Your task to perform on an android device: turn off location Image 0: 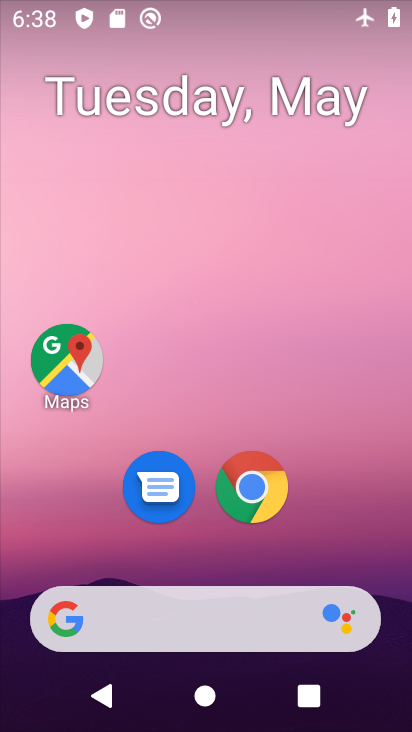
Step 0: drag from (337, 498) to (257, 214)
Your task to perform on an android device: turn off location Image 1: 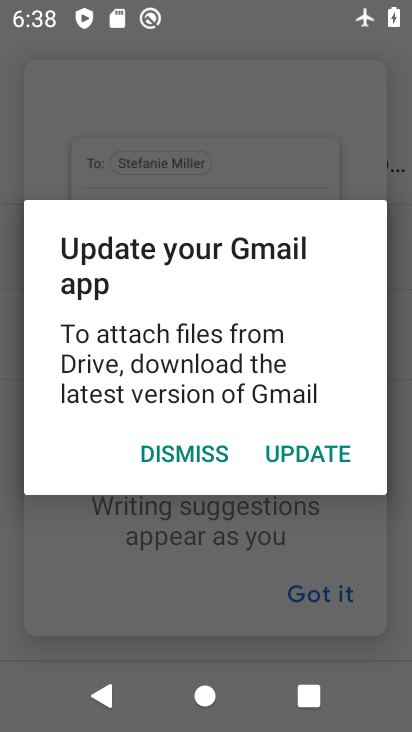
Step 1: press home button
Your task to perform on an android device: turn off location Image 2: 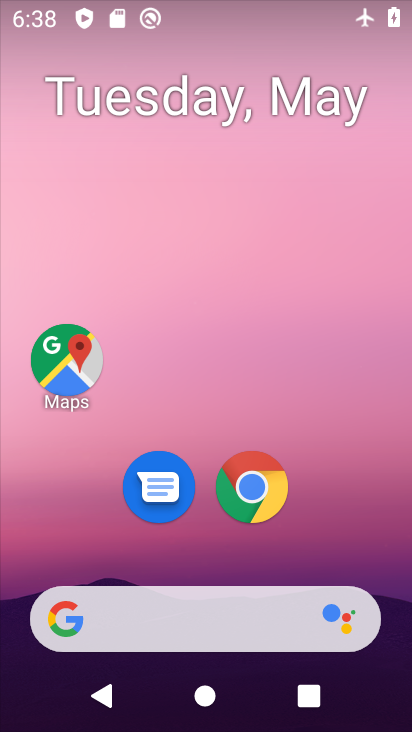
Step 2: drag from (328, 500) to (210, 220)
Your task to perform on an android device: turn off location Image 3: 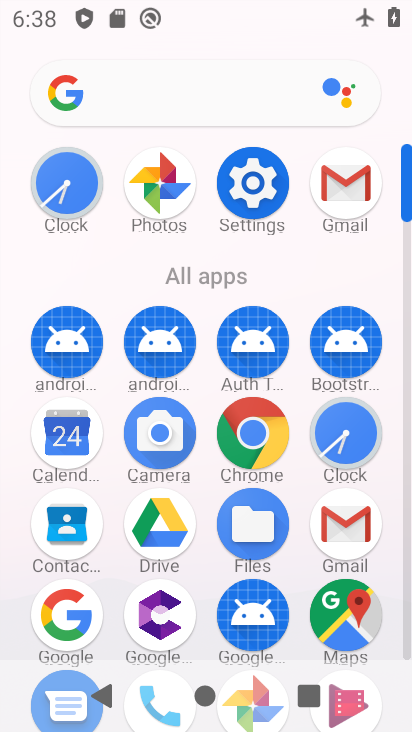
Step 3: click (263, 175)
Your task to perform on an android device: turn off location Image 4: 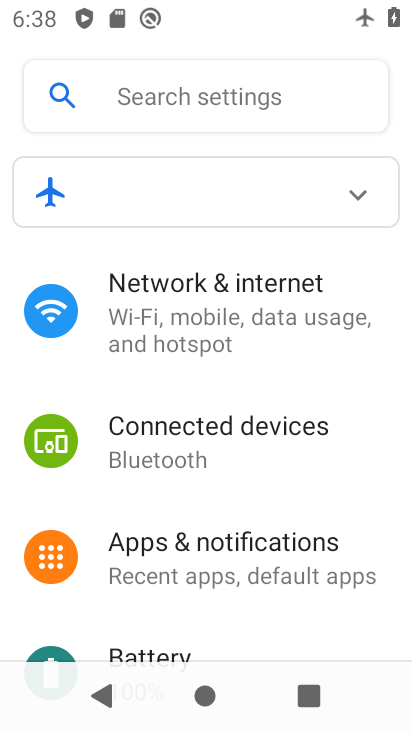
Step 4: drag from (233, 509) to (149, 263)
Your task to perform on an android device: turn off location Image 5: 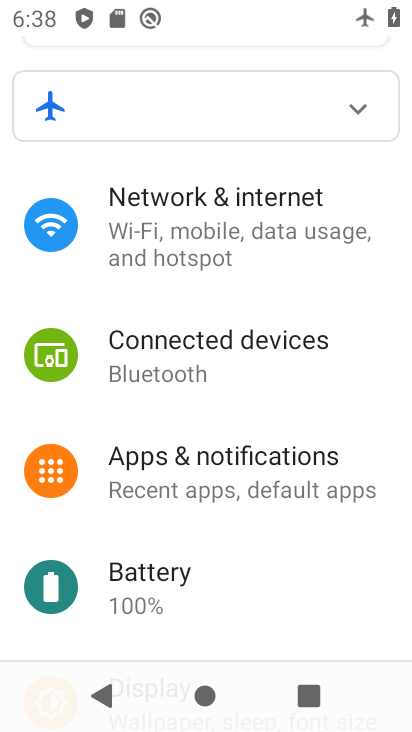
Step 5: drag from (265, 515) to (172, 261)
Your task to perform on an android device: turn off location Image 6: 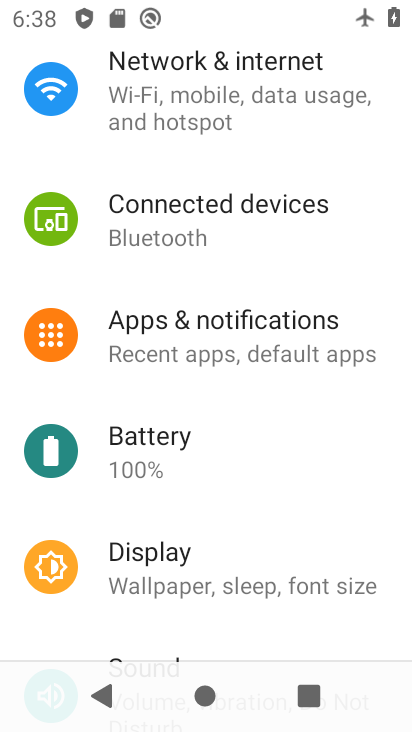
Step 6: drag from (237, 489) to (168, 227)
Your task to perform on an android device: turn off location Image 7: 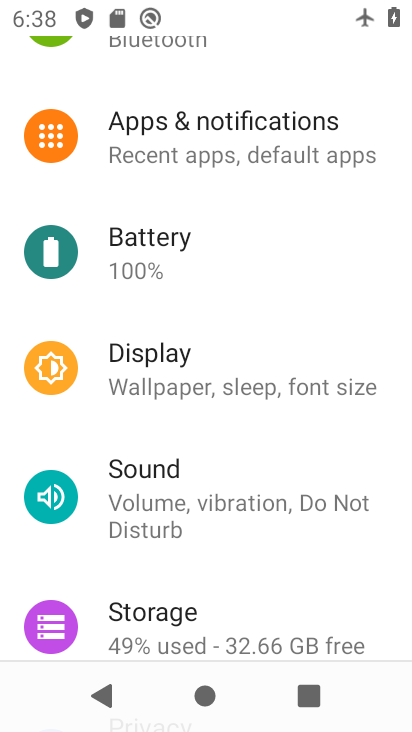
Step 7: drag from (245, 567) to (144, 265)
Your task to perform on an android device: turn off location Image 8: 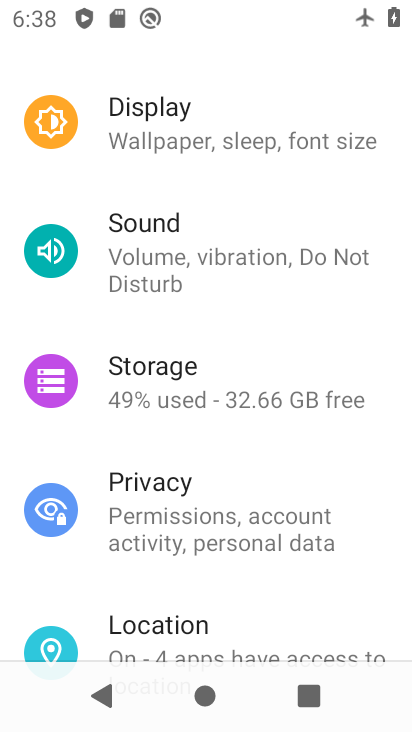
Step 8: click (183, 621)
Your task to perform on an android device: turn off location Image 9: 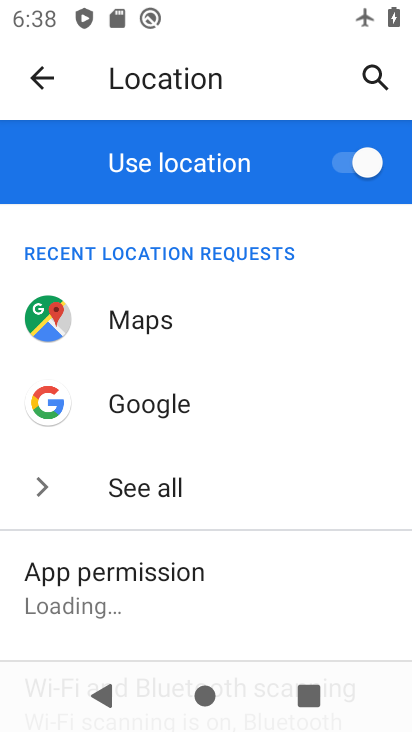
Step 9: click (361, 168)
Your task to perform on an android device: turn off location Image 10: 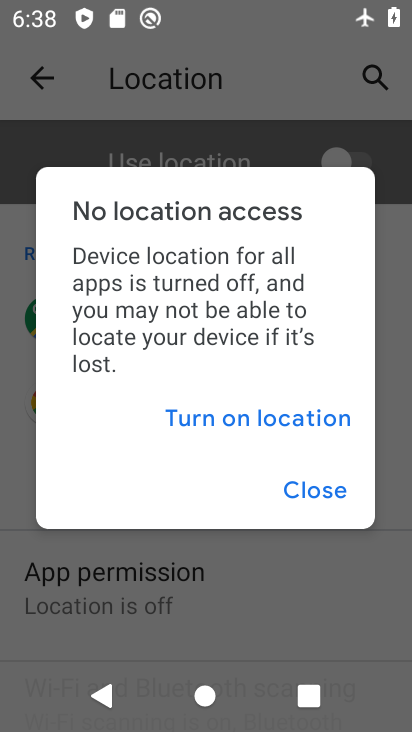
Step 10: click (327, 501)
Your task to perform on an android device: turn off location Image 11: 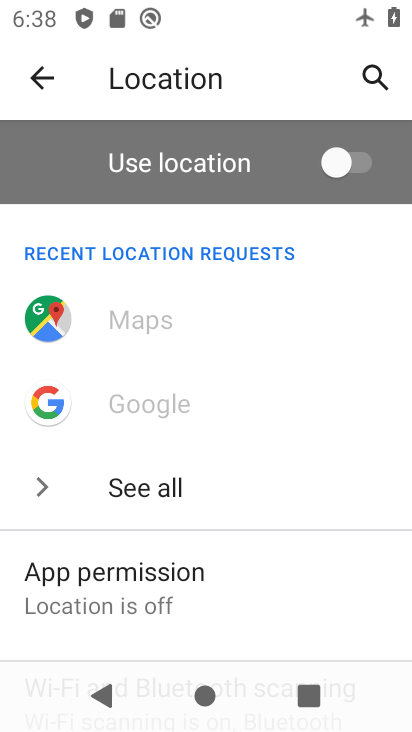
Step 11: task complete